Your task to perform on an android device: Open the map Image 0: 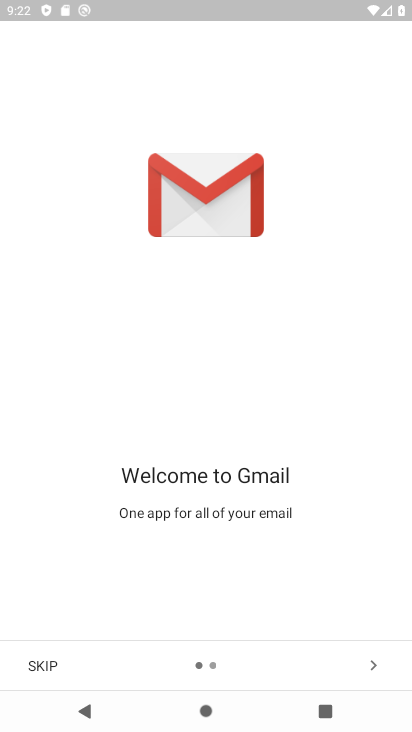
Step 0: press home button
Your task to perform on an android device: Open the map Image 1: 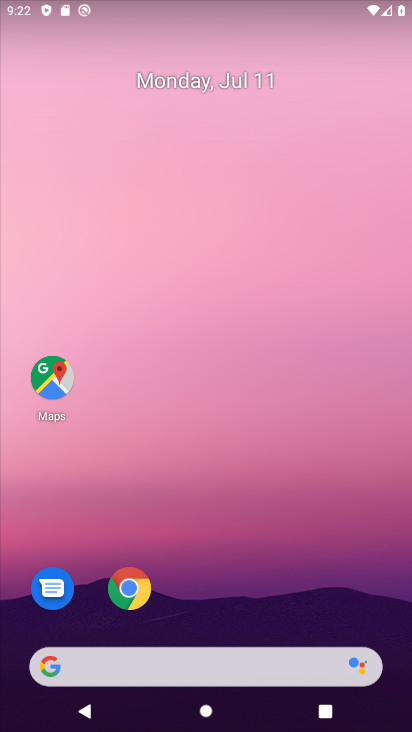
Step 1: drag from (215, 600) to (242, 96)
Your task to perform on an android device: Open the map Image 2: 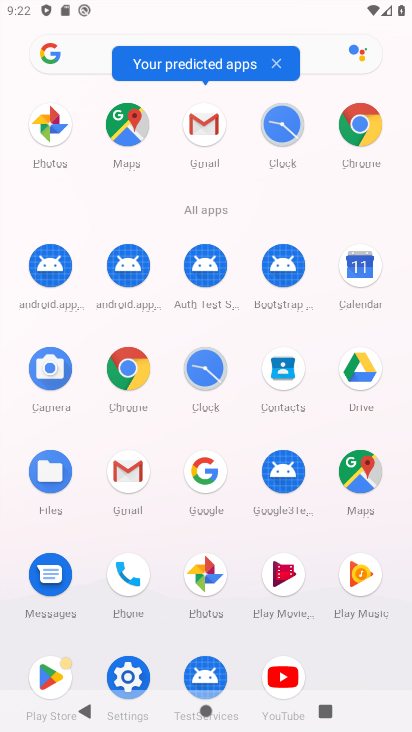
Step 2: click (357, 461)
Your task to perform on an android device: Open the map Image 3: 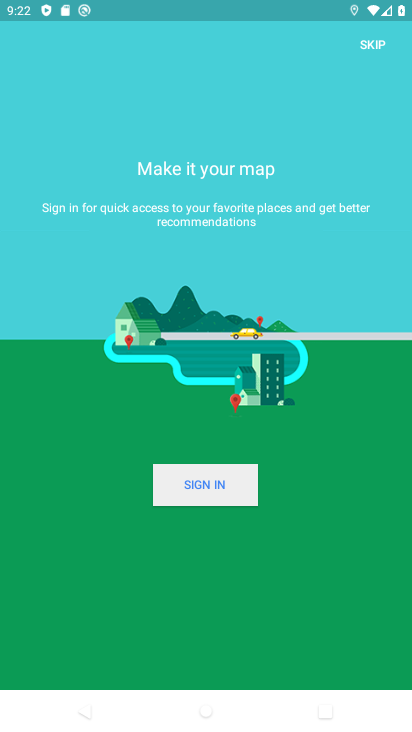
Step 3: click (370, 45)
Your task to perform on an android device: Open the map Image 4: 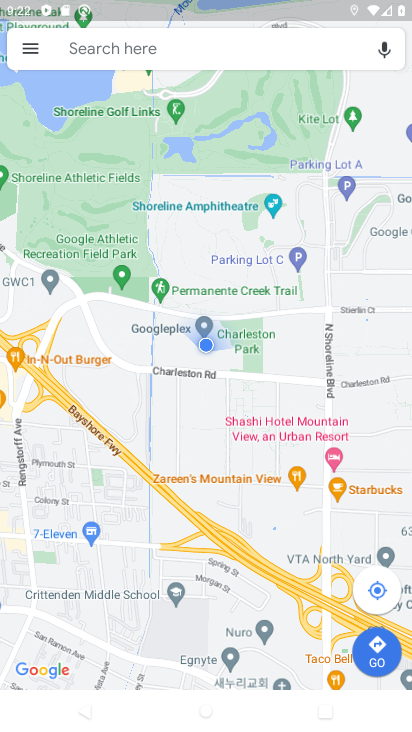
Step 4: task complete